Your task to perform on an android device: turn pop-ups off in chrome Image 0: 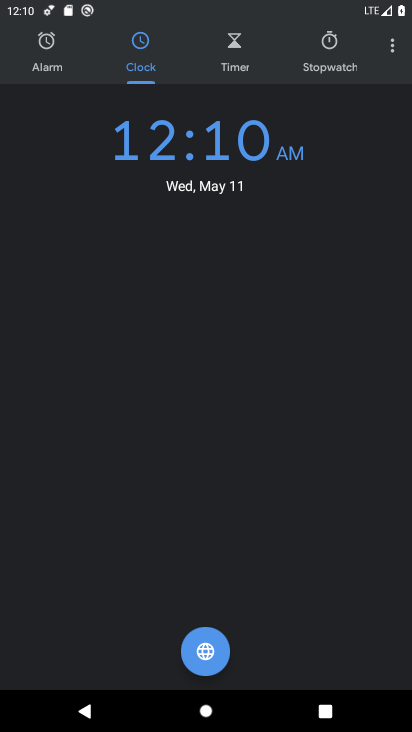
Step 0: press home button
Your task to perform on an android device: turn pop-ups off in chrome Image 1: 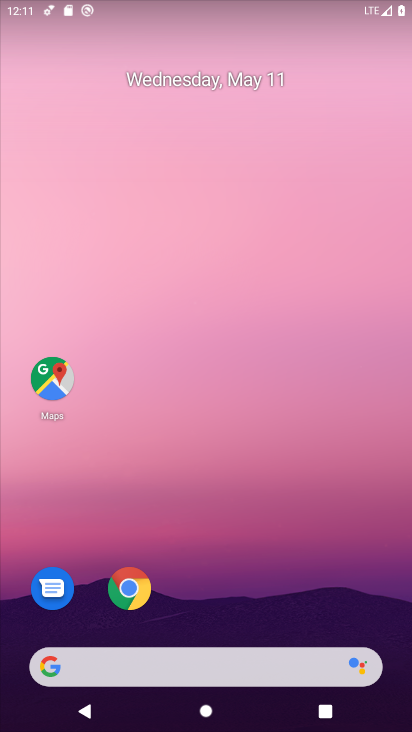
Step 1: drag from (121, 652) to (122, 327)
Your task to perform on an android device: turn pop-ups off in chrome Image 2: 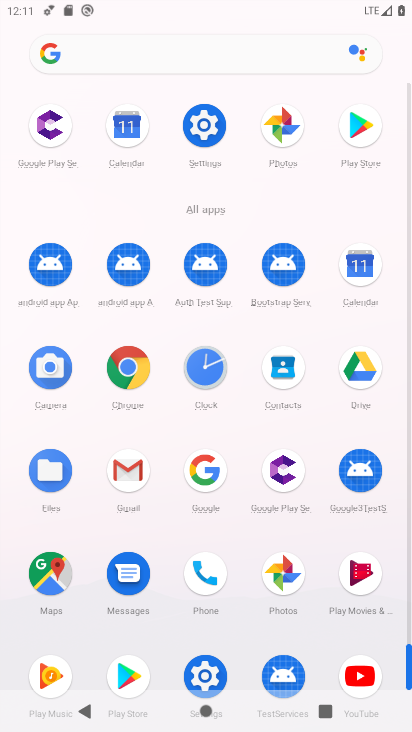
Step 2: click (215, 128)
Your task to perform on an android device: turn pop-ups off in chrome Image 3: 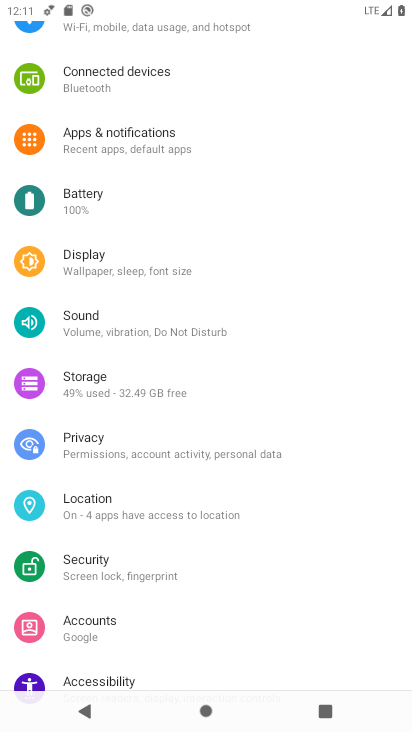
Step 3: press home button
Your task to perform on an android device: turn pop-ups off in chrome Image 4: 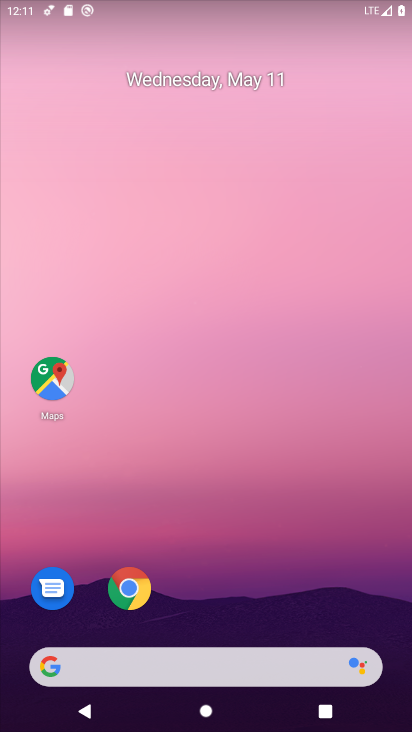
Step 4: drag from (176, 650) to (159, 304)
Your task to perform on an android device: turn pop-ups off in chrome Image 5: 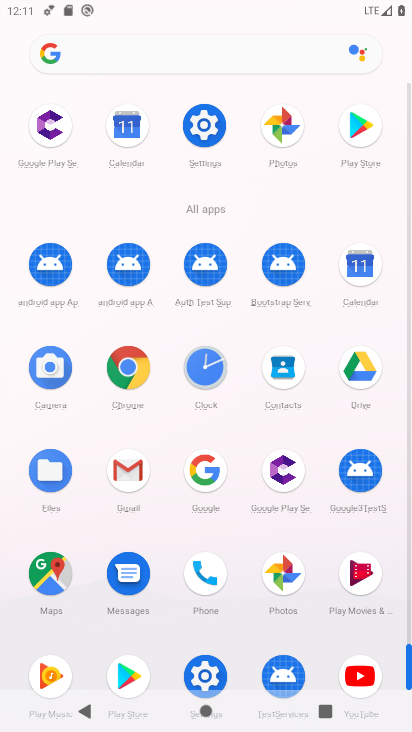
Step 5: click (127, 371)
Your task to perform on an android device: turn pop-ups off in chrome Image 6: 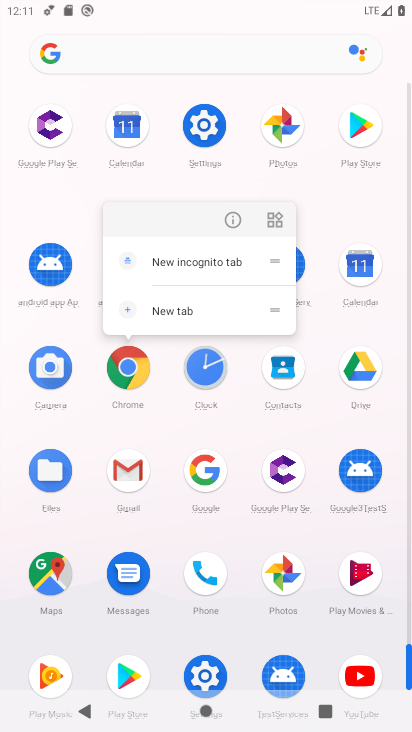
Step 6: click (130, 363)
Your task to perform on an android device: turn pop-ups off in chrome Image 7: 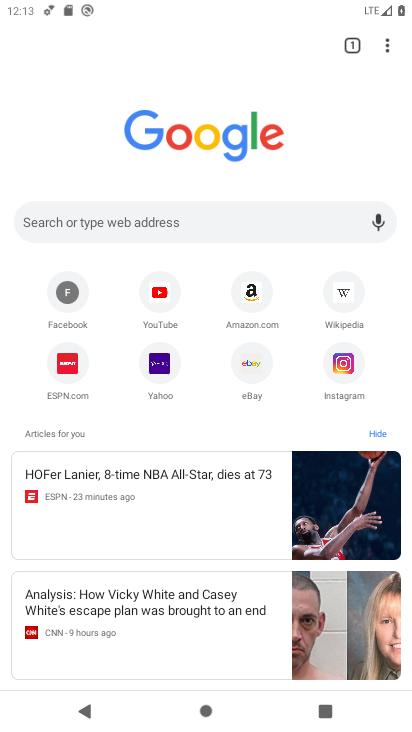
Step 7: click (387, 45)
Your task to perform on an android device: turn pop-ups off in chrome Image 8: 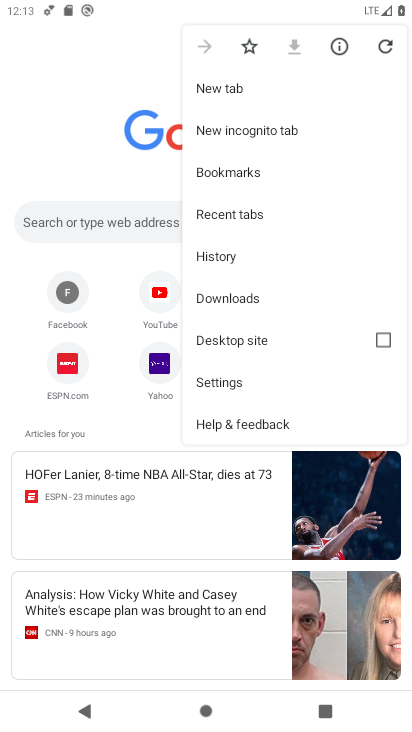
Step 8: click (240, 377)
Your task to perform on an android device: turn pop-ups off in chrome Image 9: 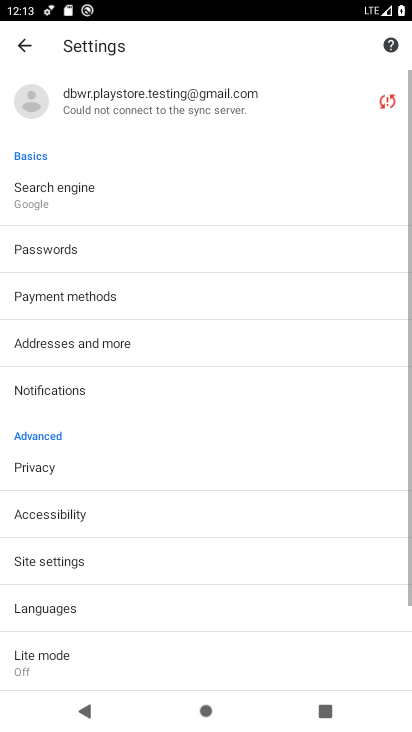
Step 9: drag from (113, 667) to (118, 334)
Your task to perform on an android device: turn pop-ups off in chrome Image 10: 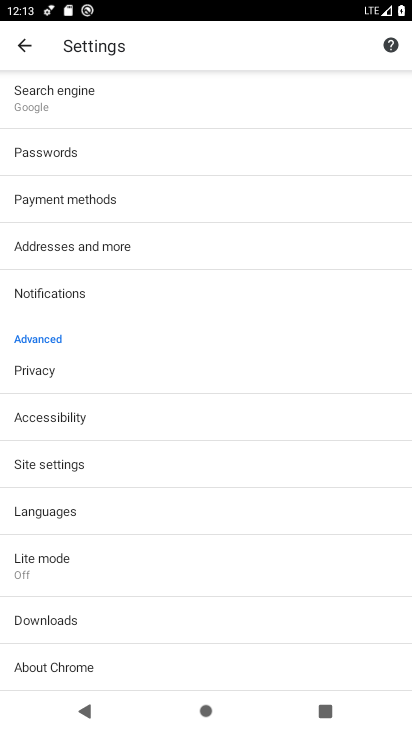
Step 10: click (40, 462)
Your task to perform on an android device: turn pop-ups off in chrome Image 11: 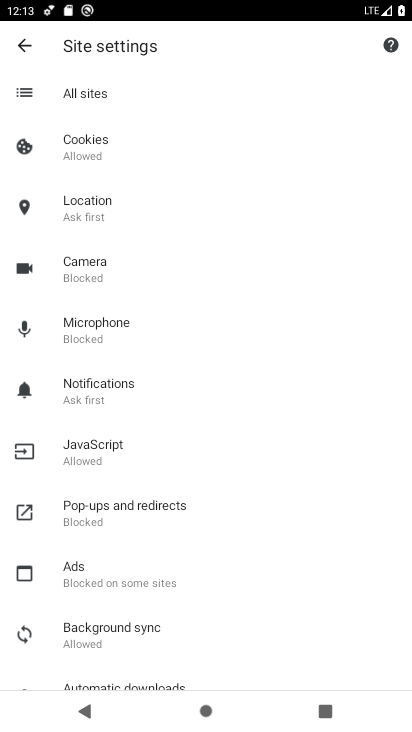
Step 11: click (134, 518)
Your task to perform on an android device: turn pop-ups off in chrome Image 12: 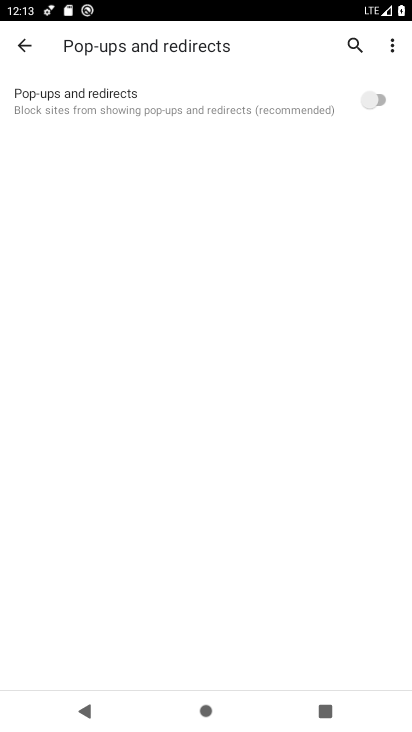
Step 12: task complete